Your task to perform on an android device: Open wifi settings Image 0: 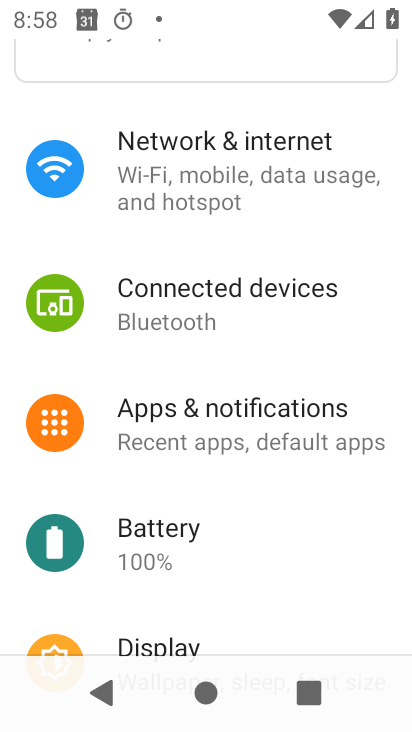
Step 0: click (207, 169)
Your task to perform on an android device: Open wifi settings Image 1: 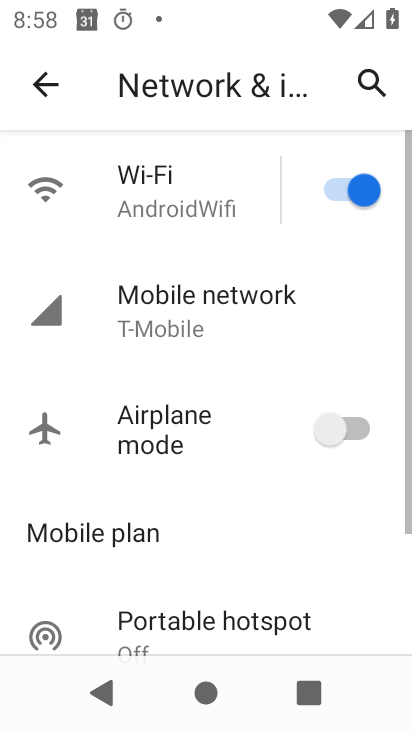
Step 1: click (161, 213)
Your task to perform on an android device: Open wifi settings Image 2: 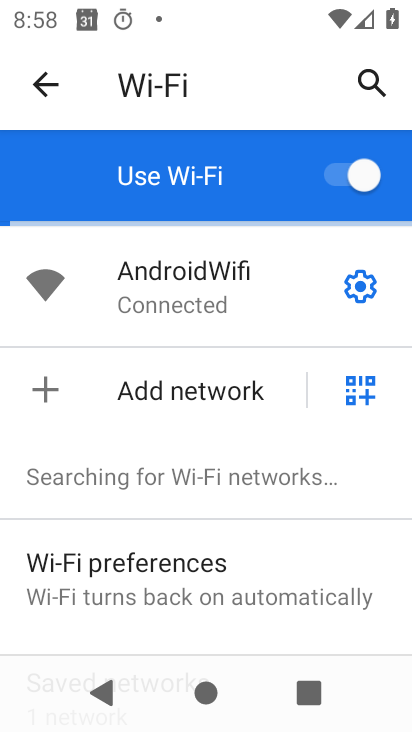
Step 2: task complete